Your task to perform on an android device: Go to internet settings Image 0: 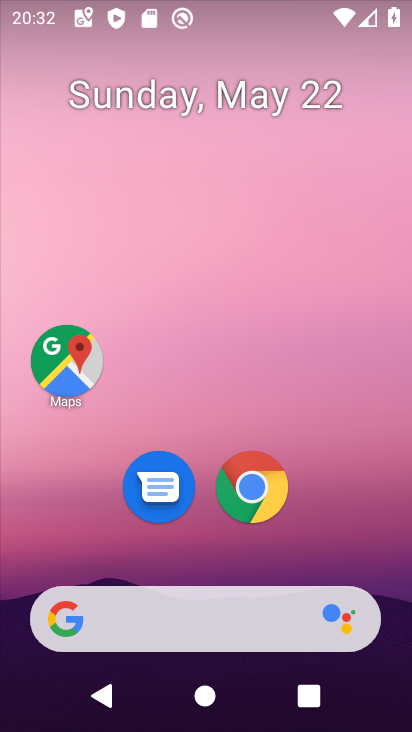
Step 0: drag from (238, 2) to (261, 357)
Your task to perform on an android device: Go to internet settings Image 1: 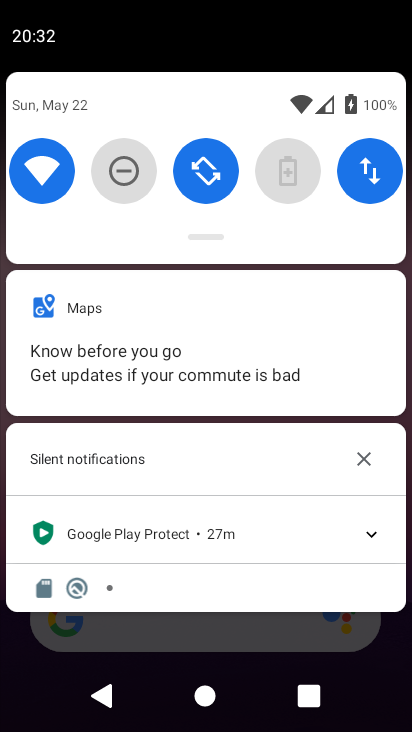
Step 1: click (375, 149)
Your task to perform on an android device: Go to internet settings Image 2: 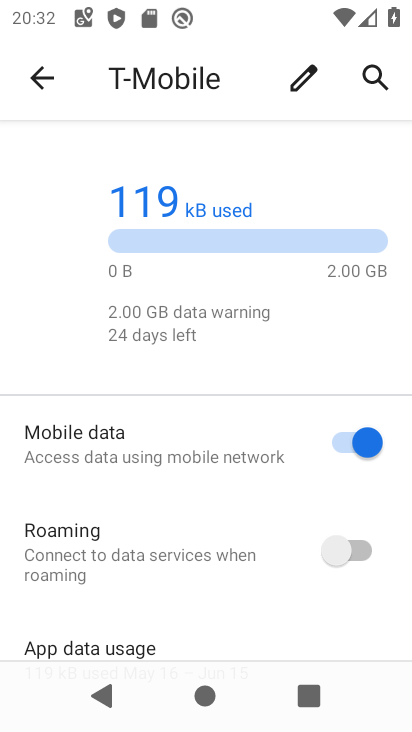
Step 2: task complete